Your task to perform on an android device: uninstall "PlayWell" Image 0: 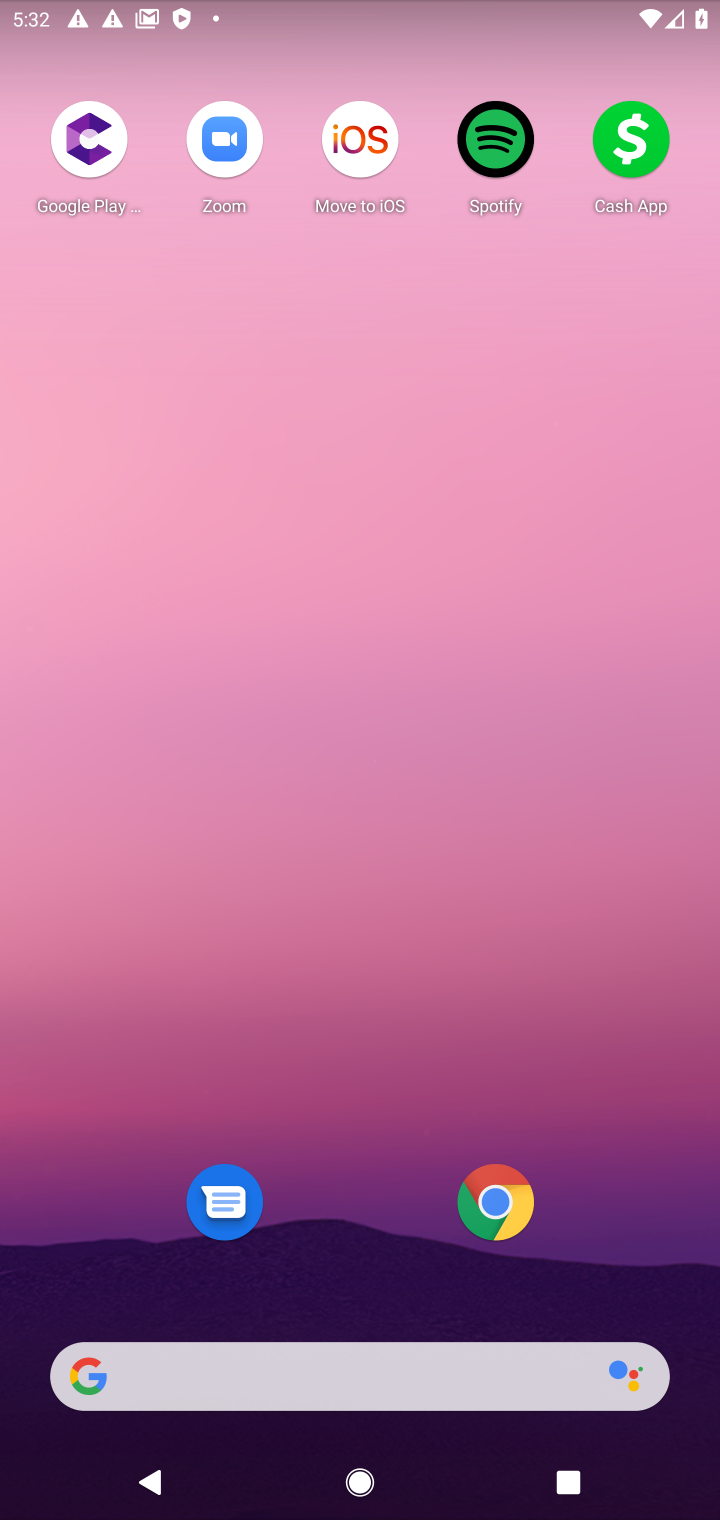
Step 0: drag from (370, 1242) to (428, 65)
Your task to perform on an android device: uninstall "PlayWell" Image 1: 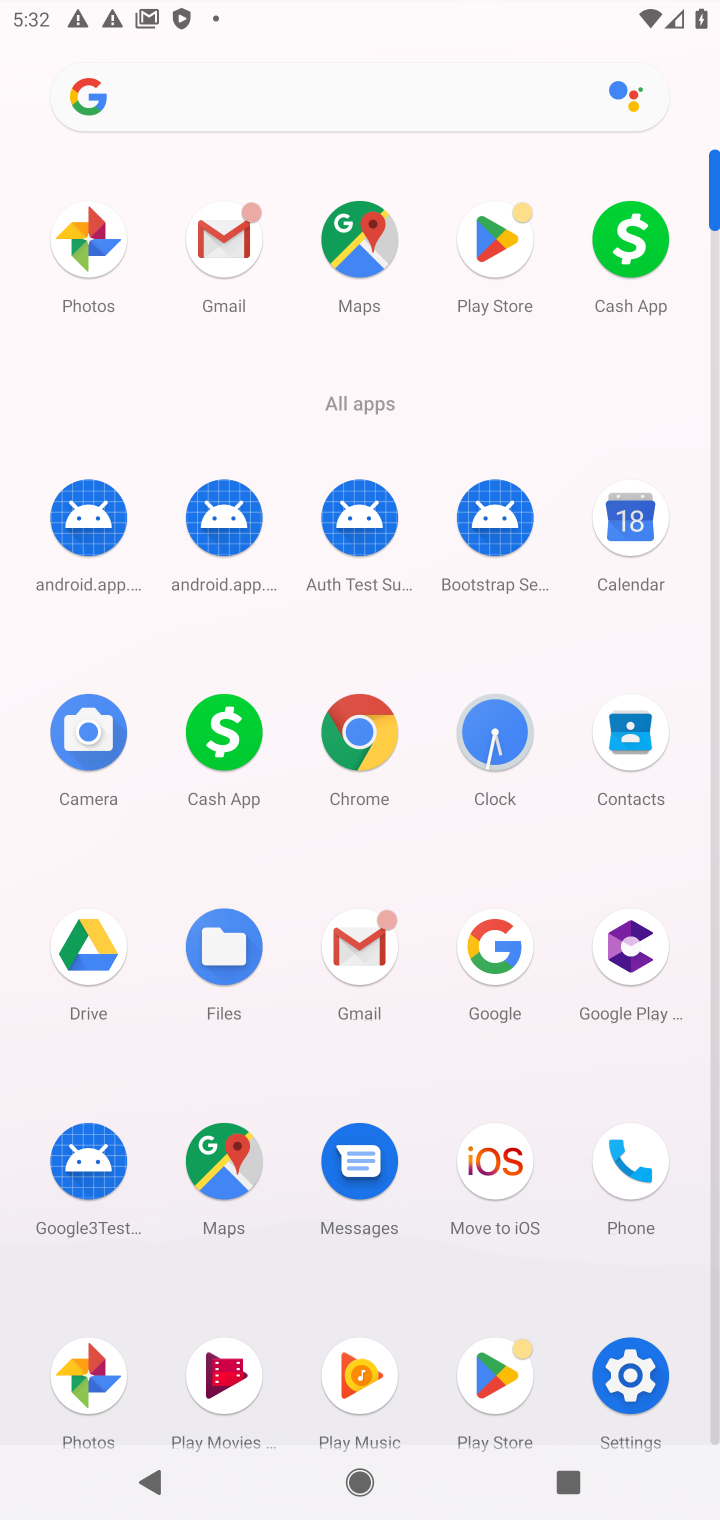
Step 1: click (477, 235)
Your task to perform on an android device: uninstall "PlayWell" Image 2: 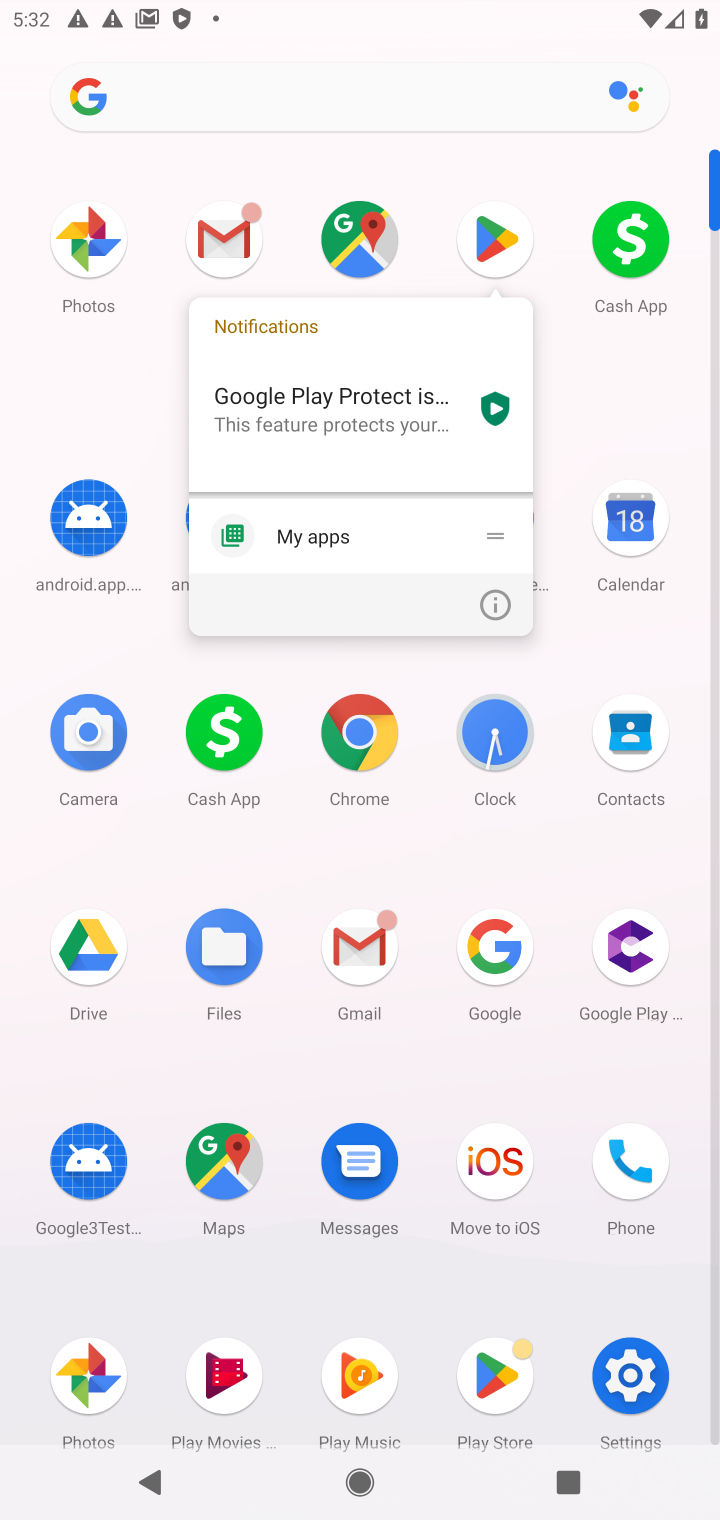
Step 2: click (489, 259)
Your task to perform on an android device: uninstall "PlayWell" Image 3: 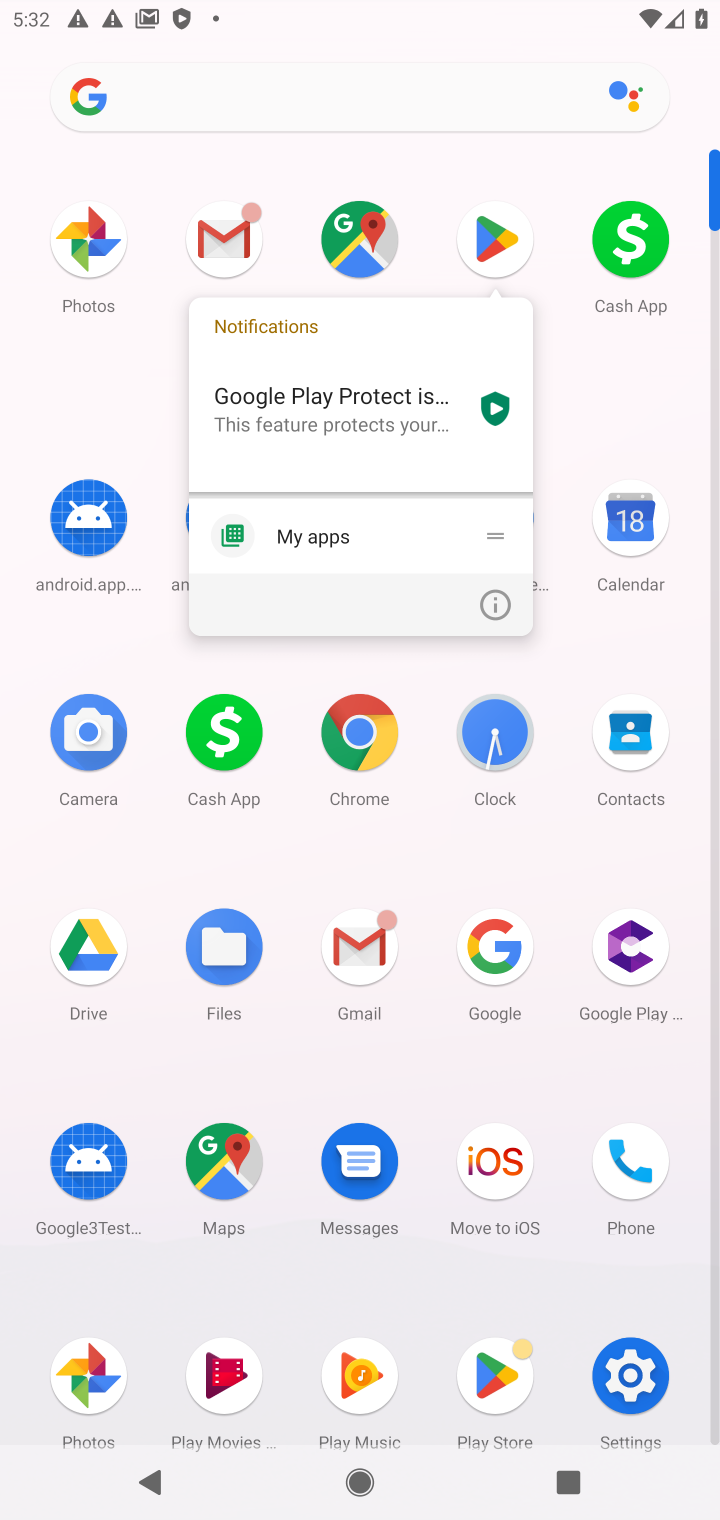
Step 3: click (489, 259)
Your task to perform on an android device: uninstall "PlayWell" Image 4: 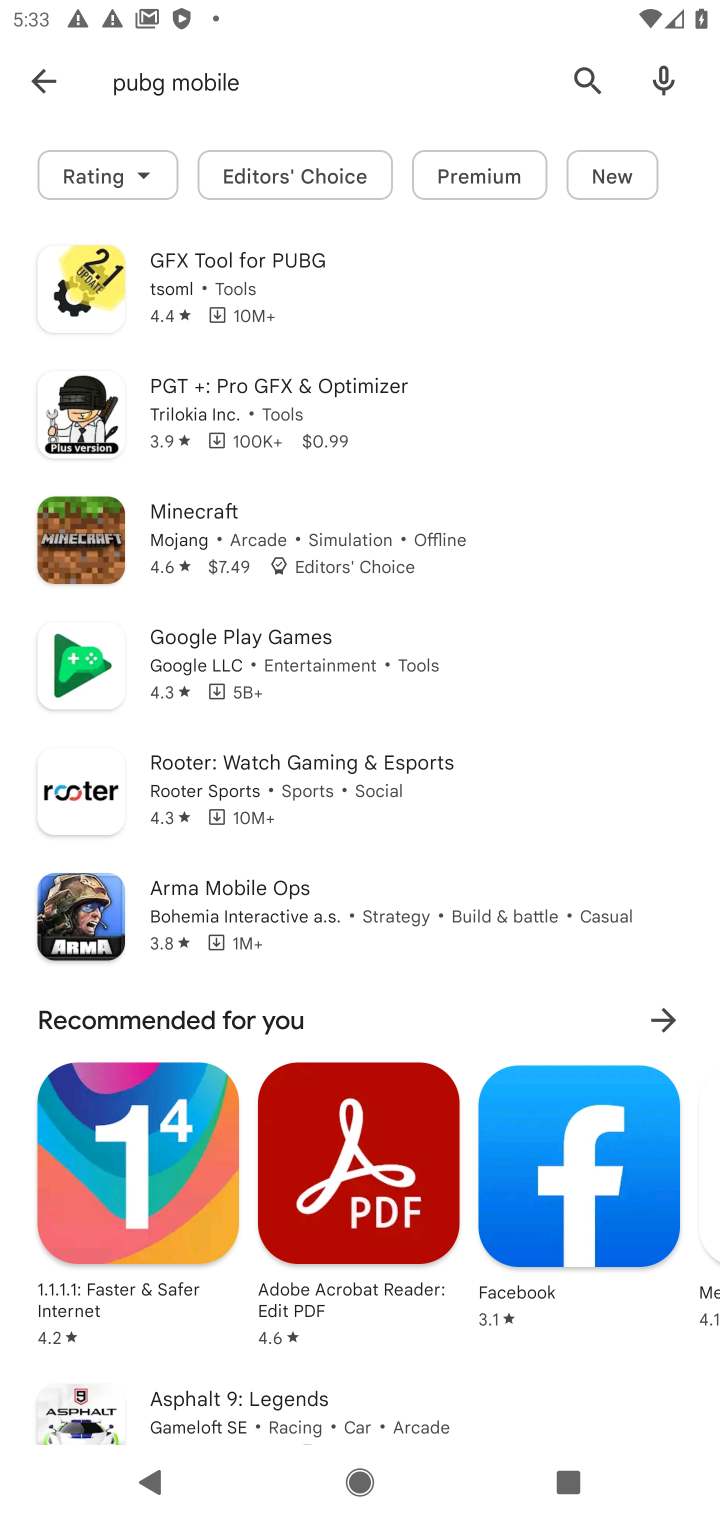
Step 4: click (580, 77)
Your task to perform on an android device: uninstall "PlayWell" Image 5: 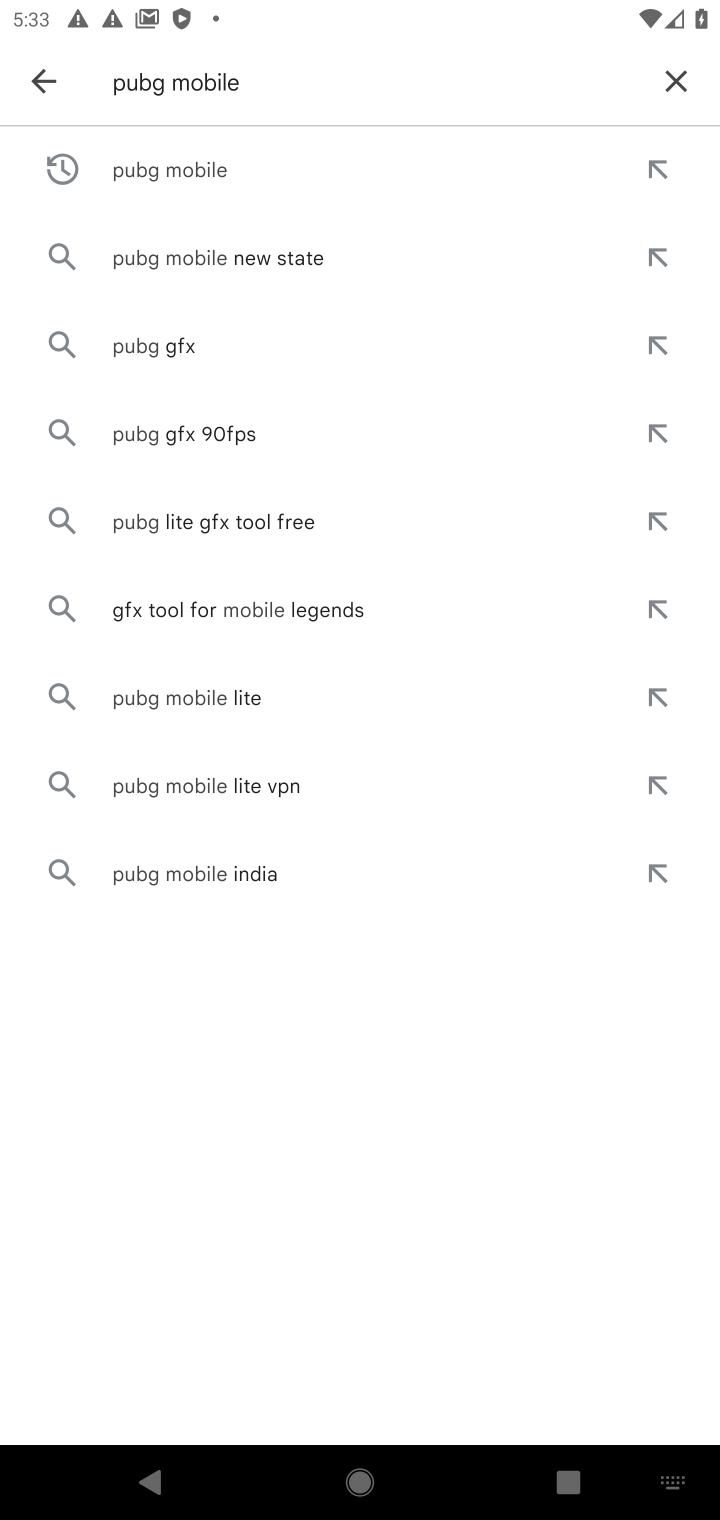
Step 5: click (672, 66)
Your task to perform on an android device: uninstall "PlayWell" Image 6: 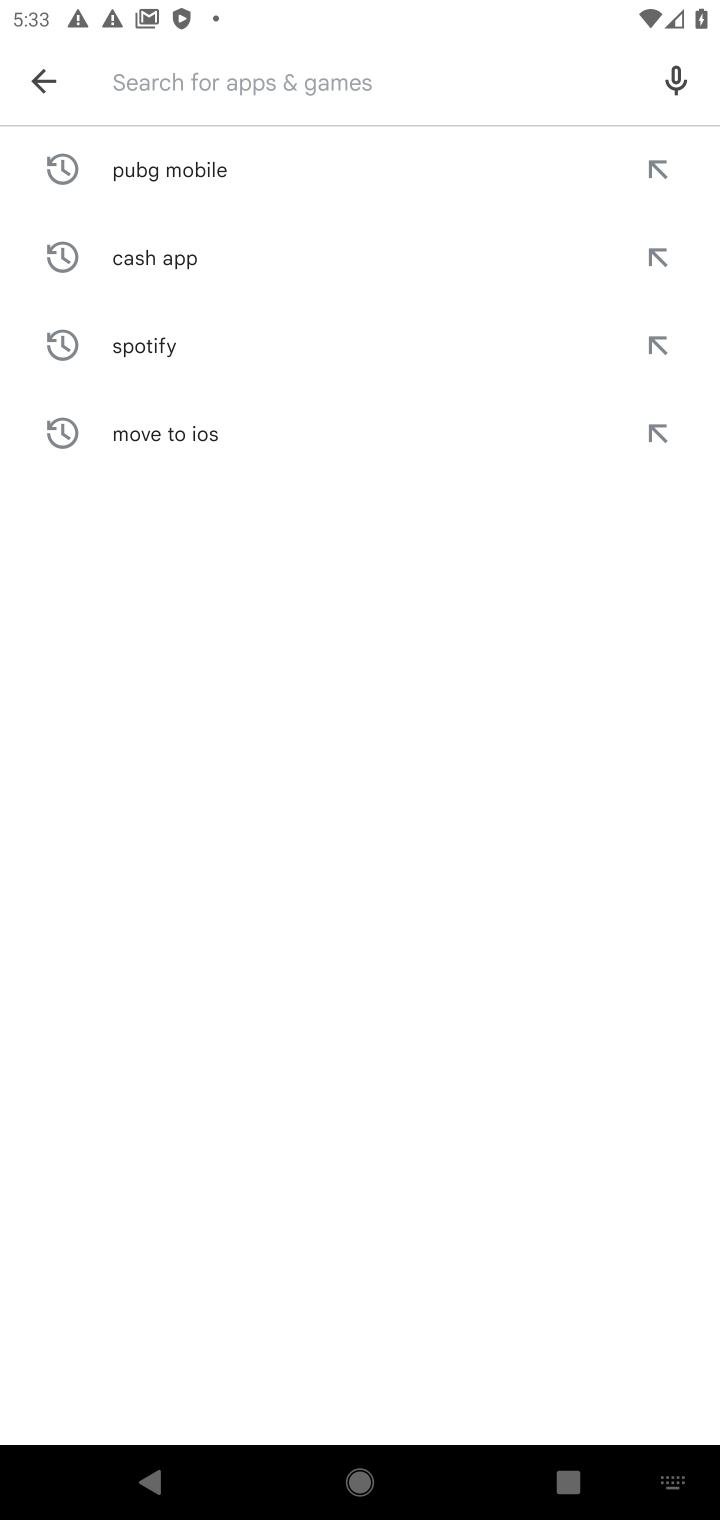
Step 6: type "playwell"
Your task to perform on an android device: uninstall "PlayWell" Image 7: 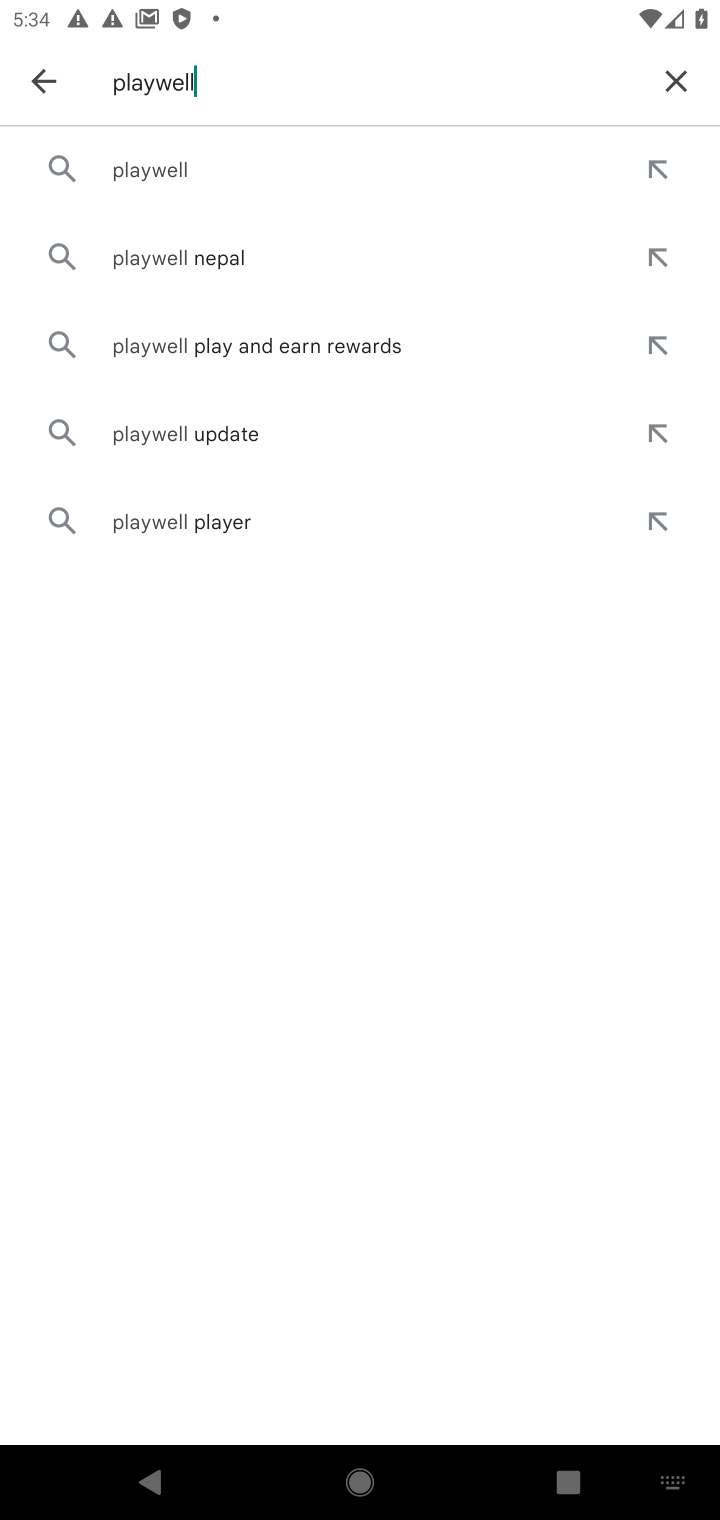
Step 7: click (180, 160)
Your task to perform on an android device: uninstall "PlayWell" Image 8: 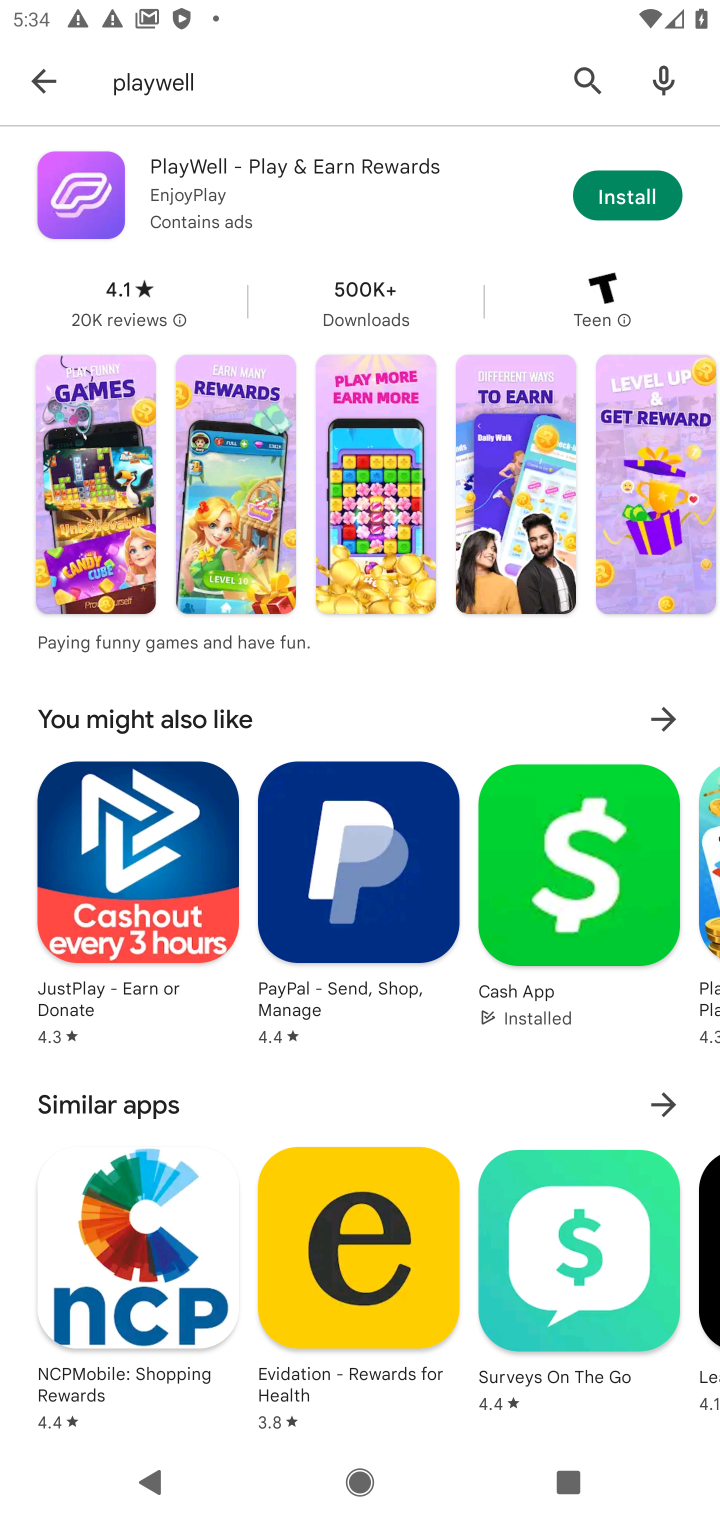
Step 8: task complete